Your task to perform on an android device: Add razer thresher to the cart on bestbuy.com Image 0: 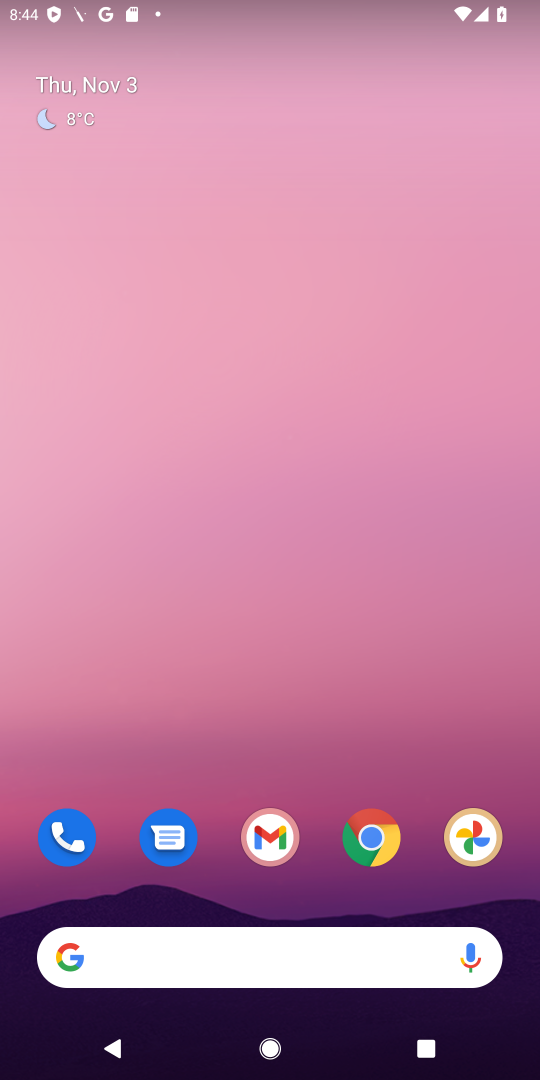
Step 0: click (373, 830)
Your task to perform on an android device: Add razer thresher to the cart on bestbuy.com Image 1: 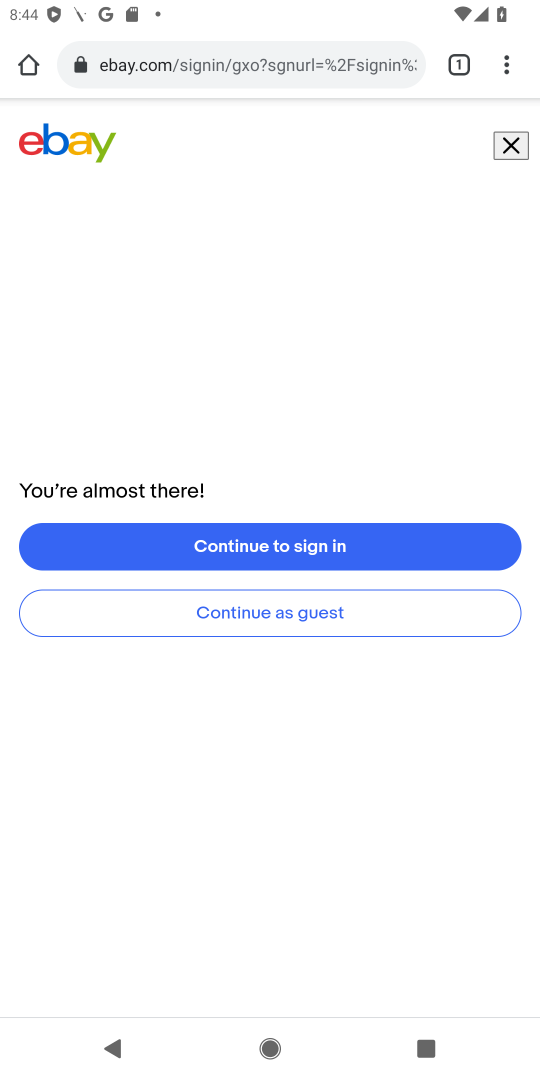
Step 1: click (296, 71)
Your task to perform on an android device: Add razer thresher to the cart on bestbuy.com Image 2: 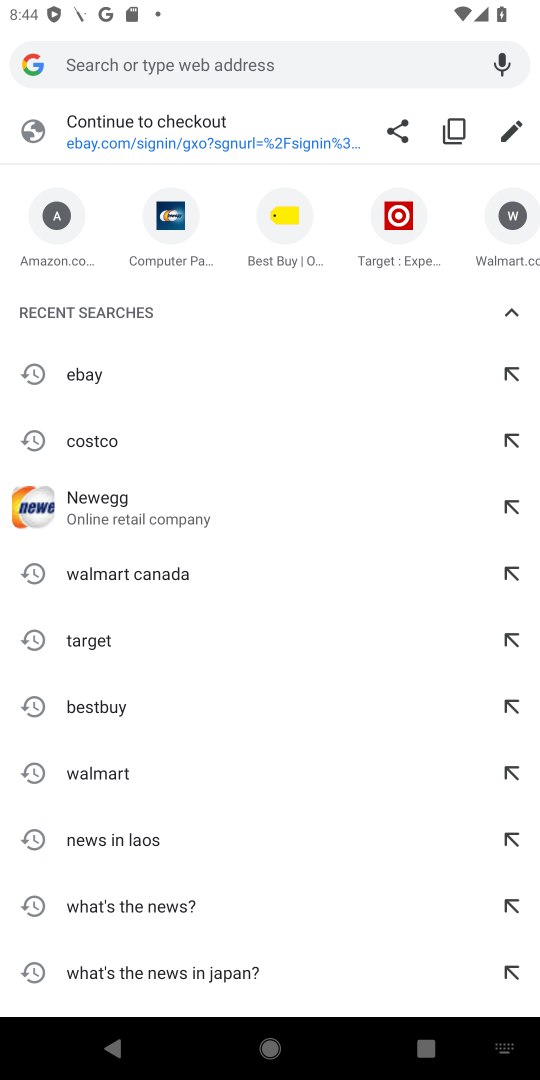
Step 2: click (100, 699)
Your task to perform on an android device: Add razer thresher to the cart on bestbuy.com Image 3: 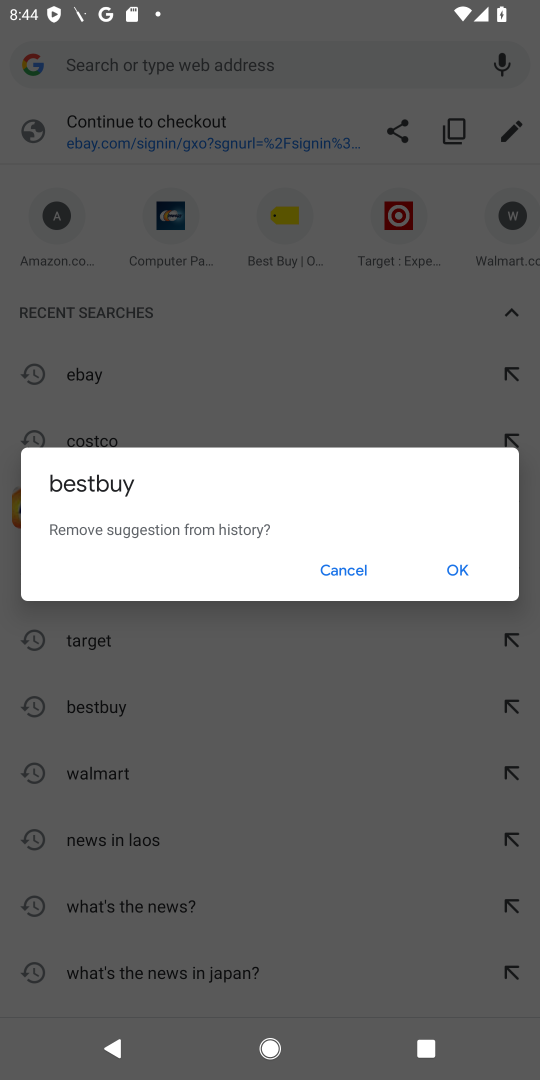
Step 3: click (340, 560)
Your task to perform on an android device: Add razer thresher to the cart on bestbuy.com Image 4: 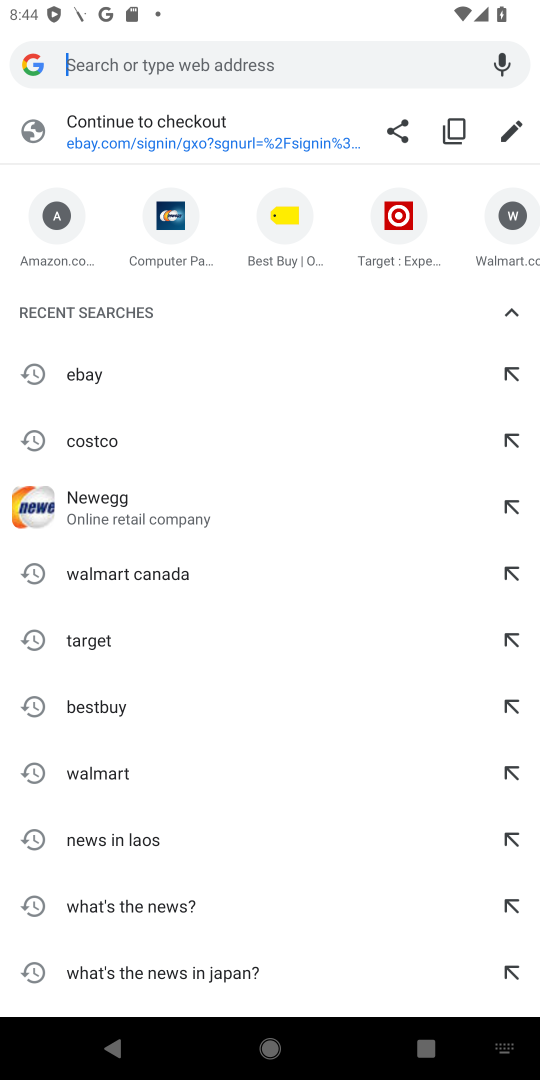
Step 4: click (107, 702)
Your task to perform on an android device: Add razer thresher to the cart on bestbuy.com Image 5: 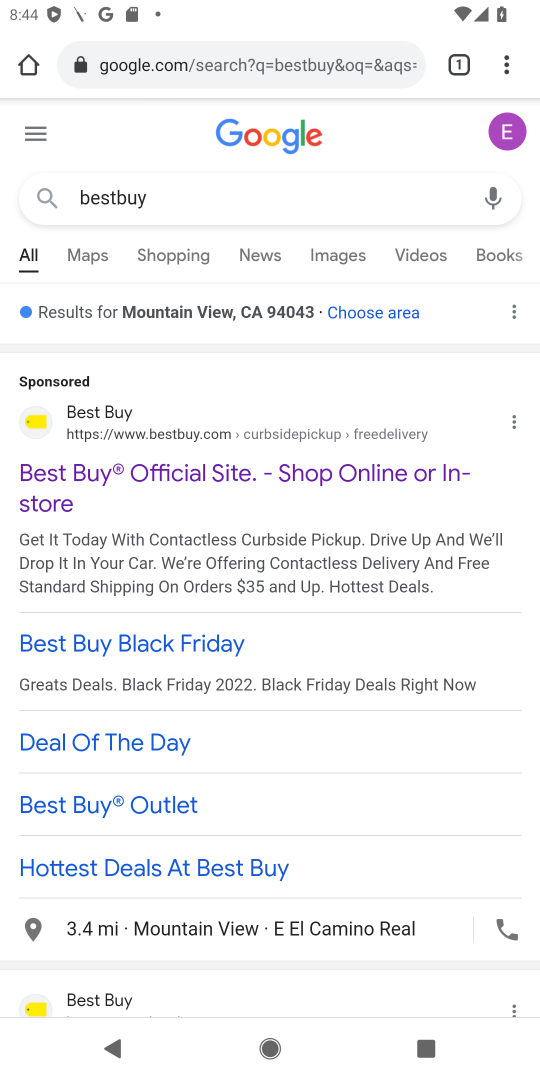
Step 5: click (369, 460)
Your task to perform on an android device: Add razer thresher to the cart on bestbuy.com Image 6: 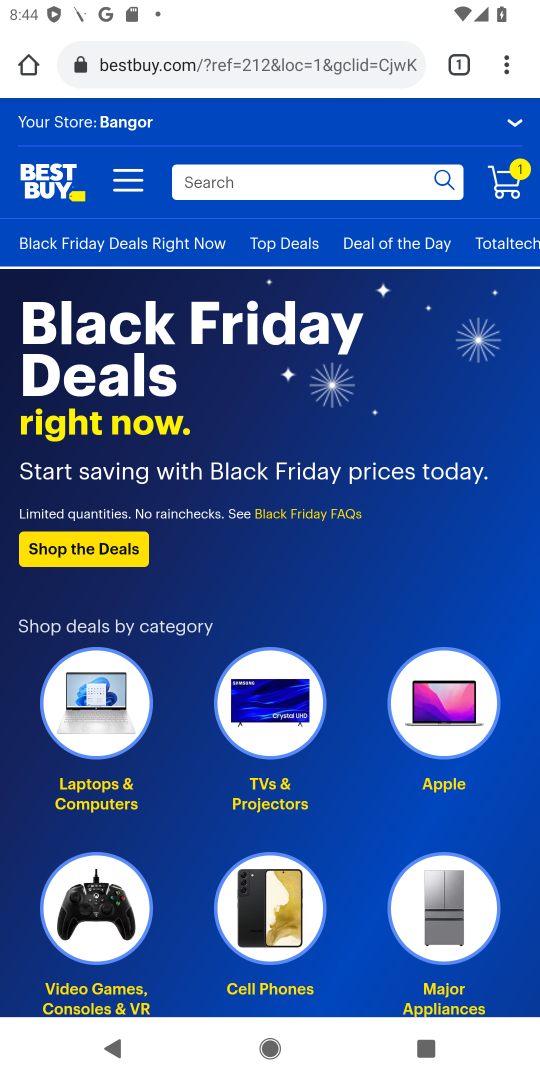
Step 6: click (265, 179)
Your task to perform on an android device: Add razer thresher to the cart on bestbuy.com Image 7: 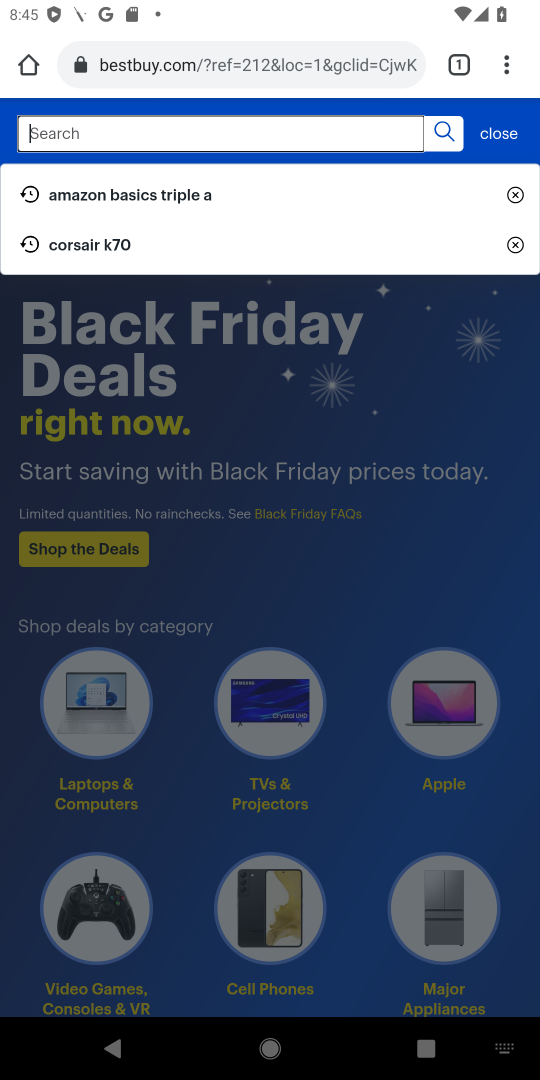
Step 7: press enter
Your task to perform on an android device: Add razer thresher to the cart on bestbuy.com Image 8: 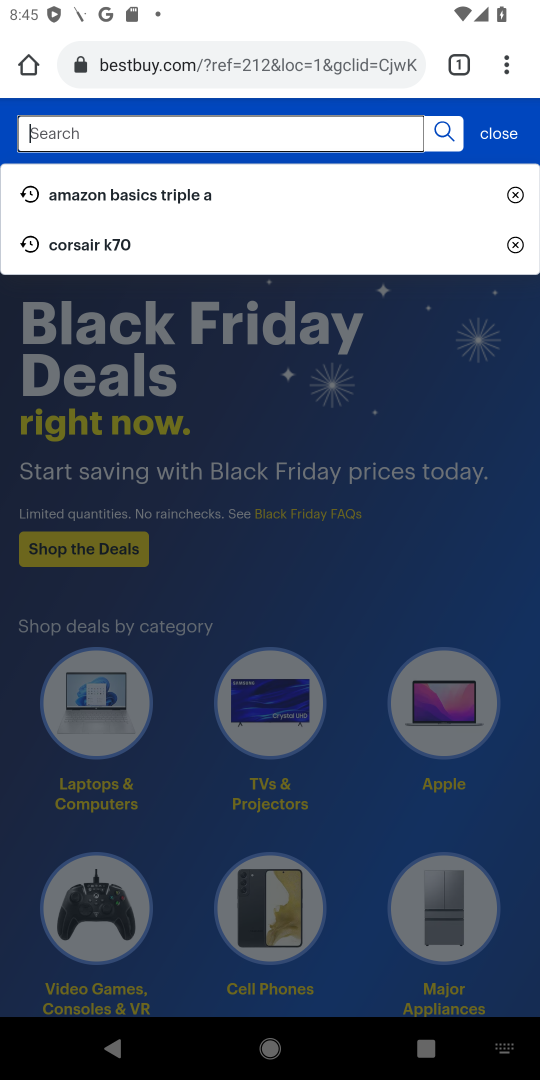
Step 8: type "razer thresher"
Your task to perform on an android device: Add razer thresher to the cart on bestbuy.com Image 9: 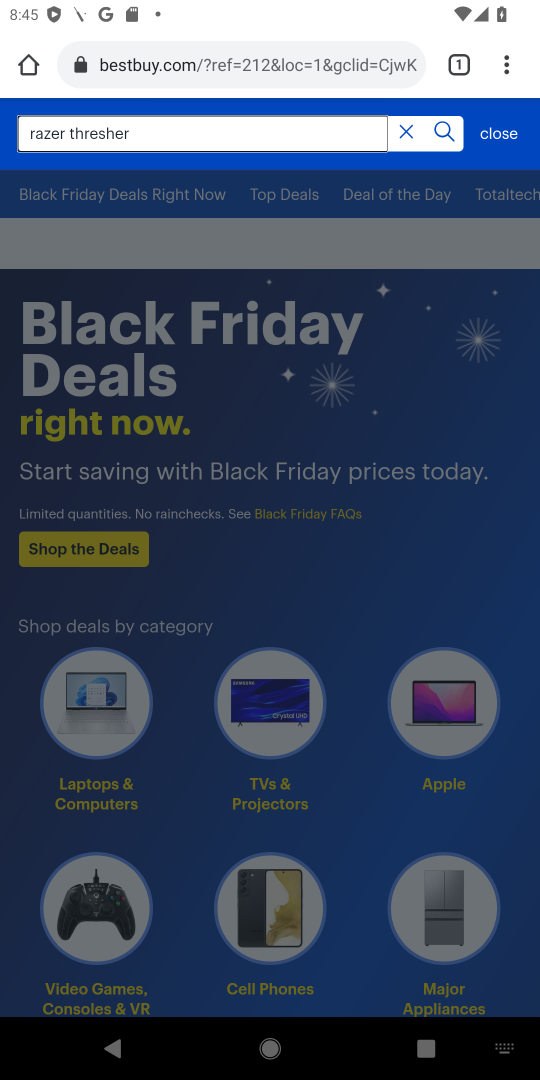
Step 9: press enter
Your task to perform on an android device: Add razer thresher to the cart on bestbuy.com Image 10: 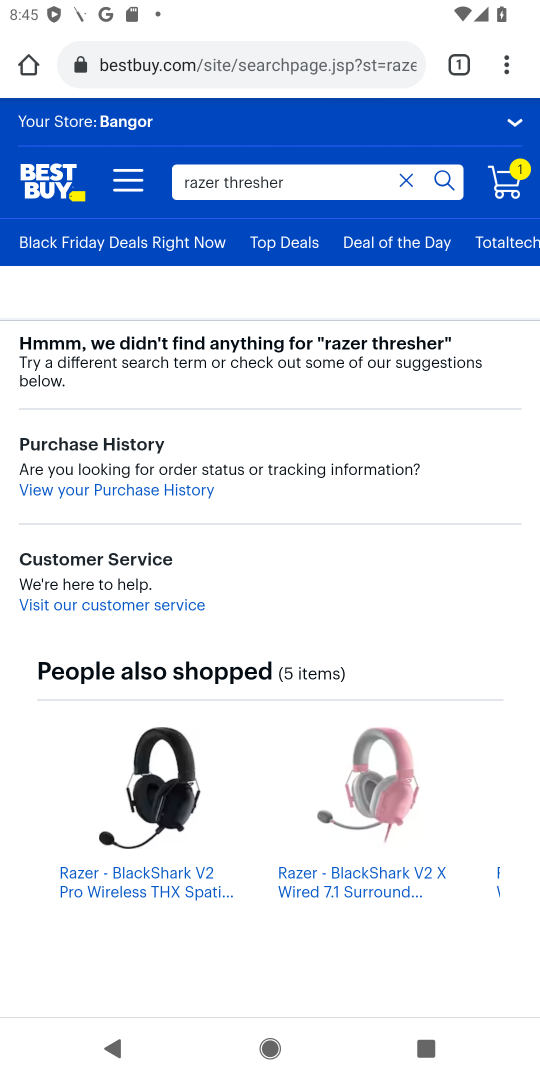
Step 10: task complete